Your task to perform on an android device: toggle location history Image 0: 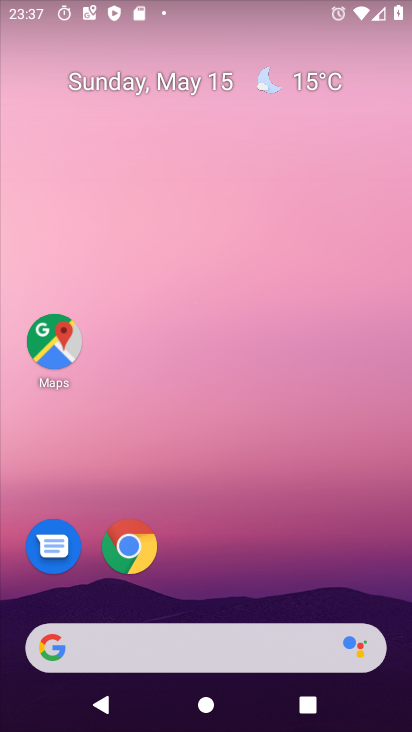
Step 0: drag from (271, 672) to (230, 195)
Your task to perform on an android device: toggle location history Image 1: 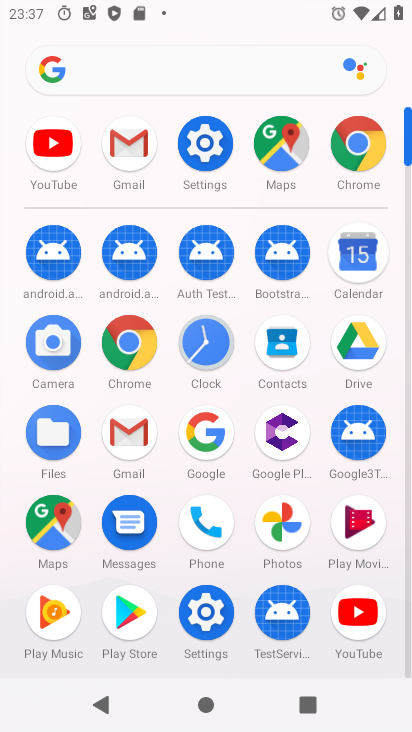
Step 1: click (277, 146)
Your task to perform on an android device: toggle location history Image 2: 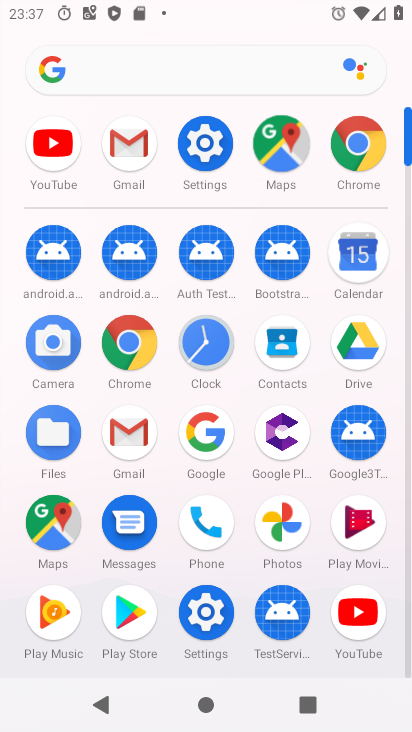
Step 2: click (277, 146)
Your task to perform on an android device: toggle location history Image 3: 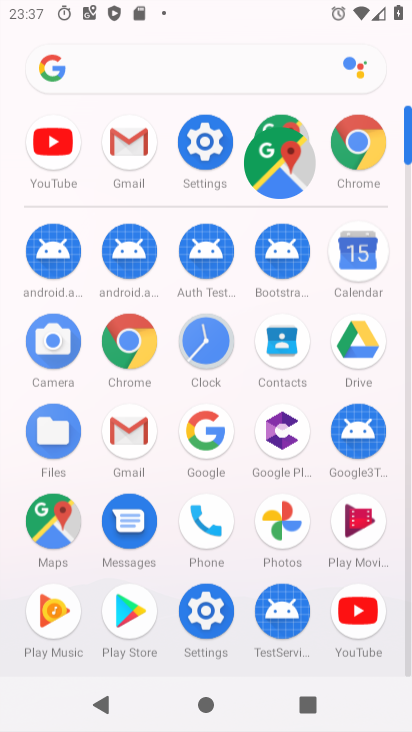
Step 3: click (277, 146)
Your task to perform on an android device: toggle location history Image 4: 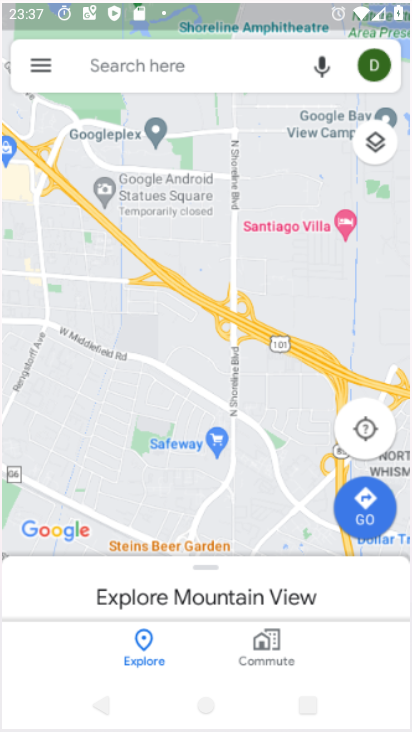
Step 4: click (278, 145)
Your task to perform on an android device: toggle location history Image 5: 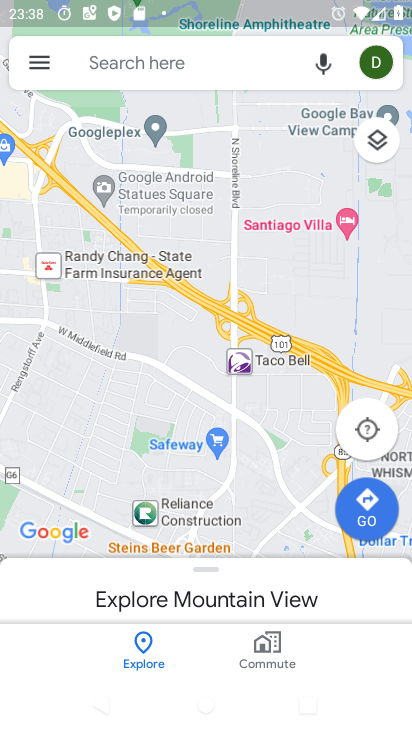
Step 5: click (102, 59)
Your task to perform on an android device: toggle location history Image 6: 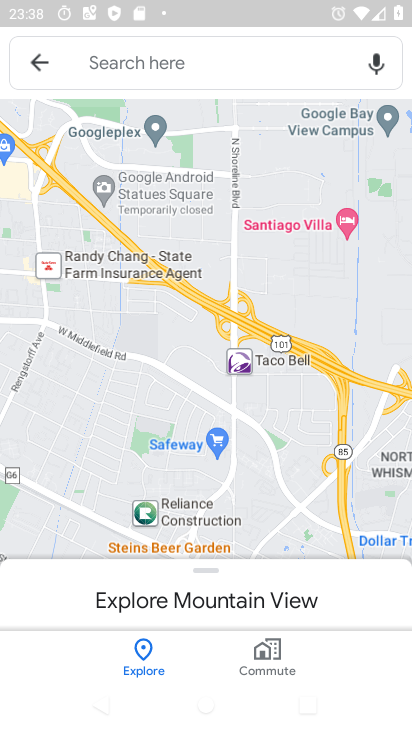
Step 6: click (102, 59)
Your task to perform on an android device: toggle location history Image 7: 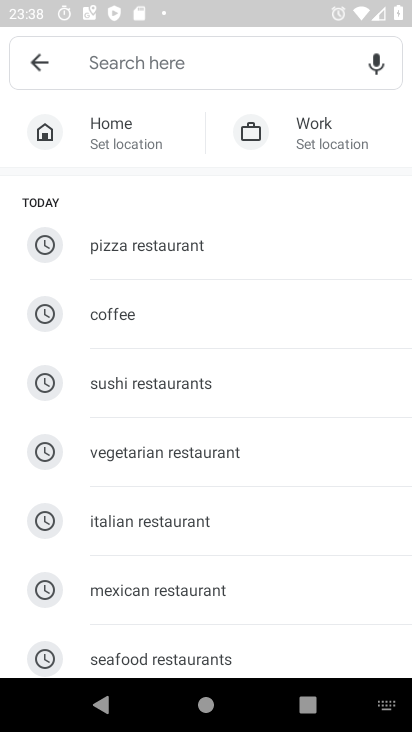
Step 7: drag from (187, 461) to (131, 44)
Your task to perform on an android device: toggle location history Image 8: 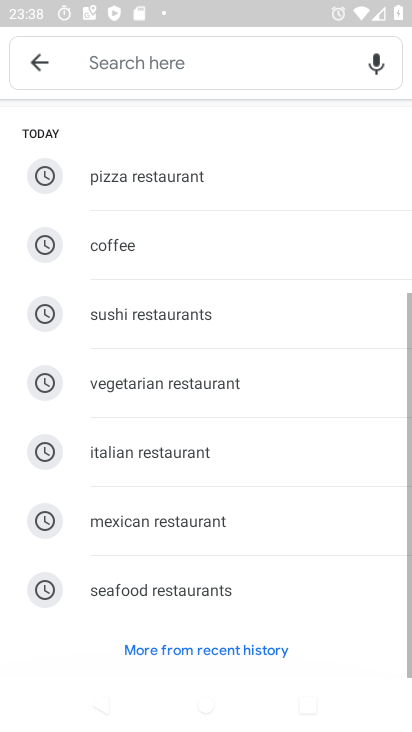
Step 8: drag from (183, 397) to (182, 144)
Your task to perform on an android device: toggle location history Image 9: 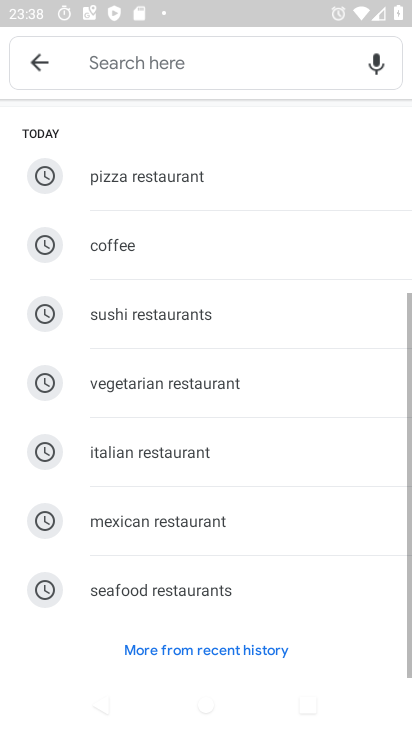
Step 9: drag from (156, 535) to (175, 214)
Your task to perform on an android device: toggle location history Image 10: 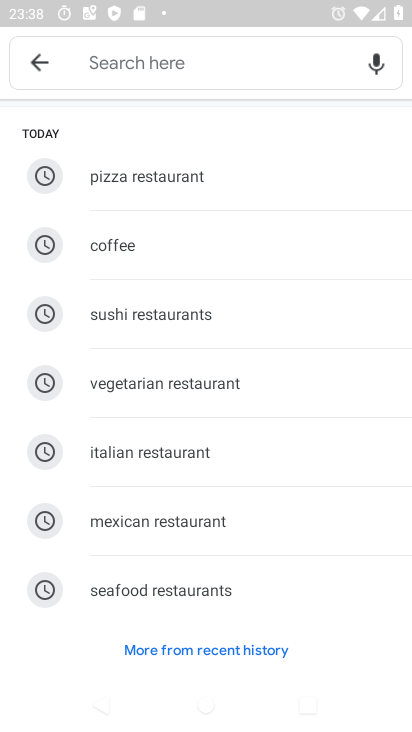
Step 10: click (38, 63)
Your task to perform on an android device: toggle location history Image 11: 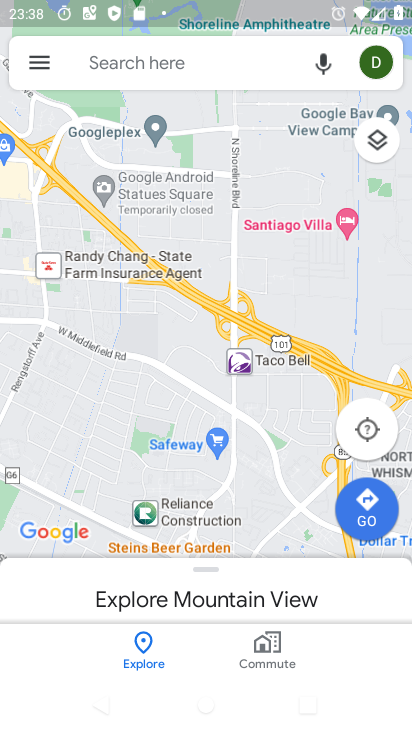
Step 11: click (73, 56)
Your task to perform on an android device: toggle location history Image 12: 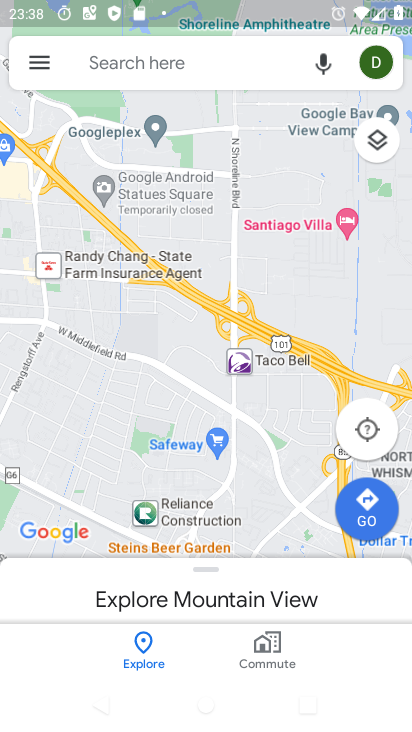
Step 12: click (116, 58)
Your task to perform on an android device: toggle location history Image 13: 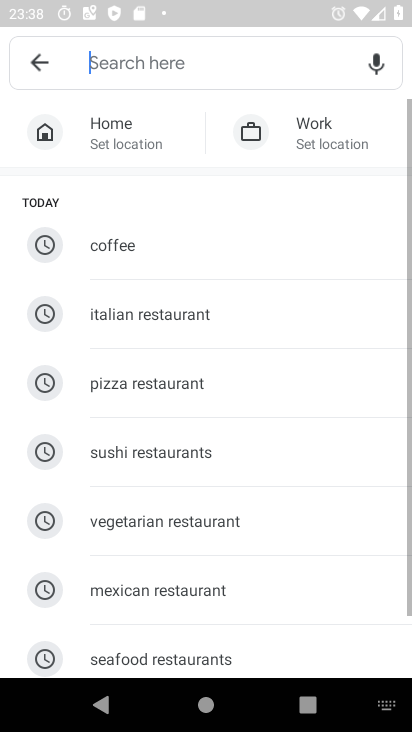
Step 13: click (93, 69)
Your task to perform on an android device: toggle location history Image 14: 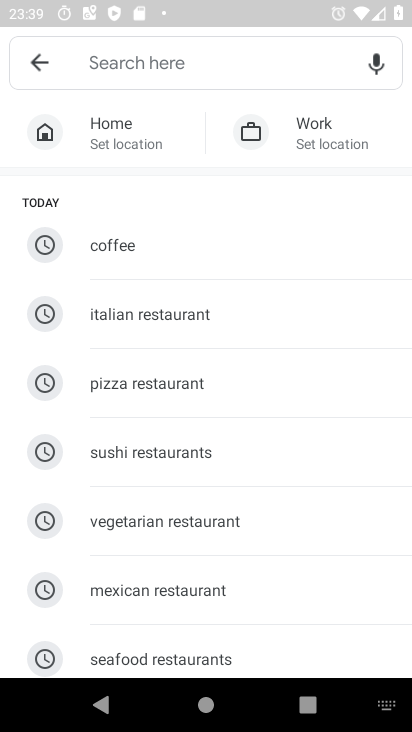
Step 14: drag from (138, 604) to (108, 231)
Your task to perform on an android device: toggle location history Image 15: 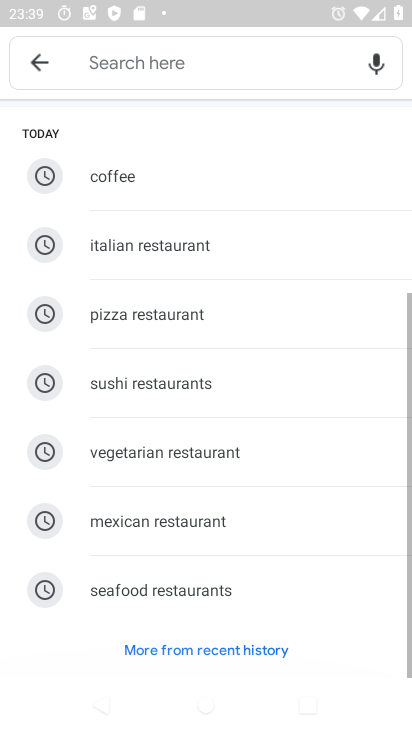
Step 15: drag from (161, 486) to (150, 215)
Your task to perform on an android device: toggle location history Image 16: 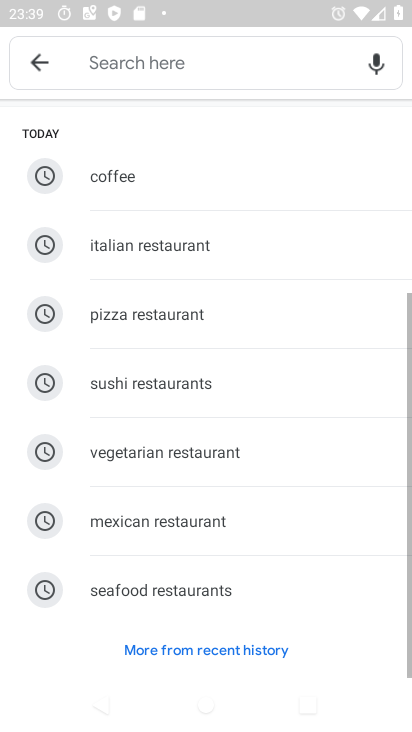
Step 16: drag from (162, 439) to (160, 182)
Your task to perform on an android device: toggle location history Image 17: 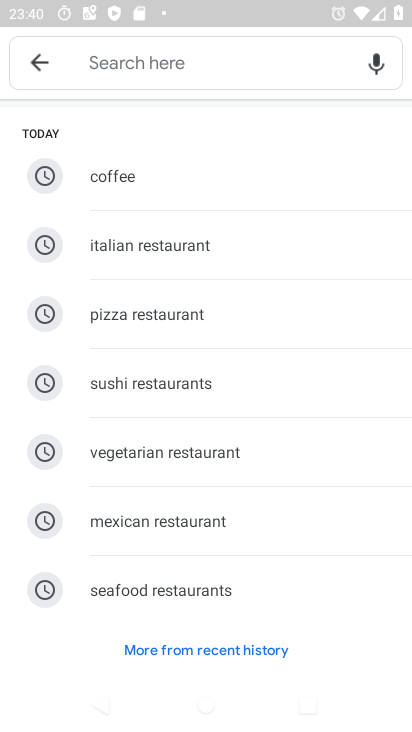
Step 17: click (41, 61)
Your task to perform on an android device: toggle location history Image 18: 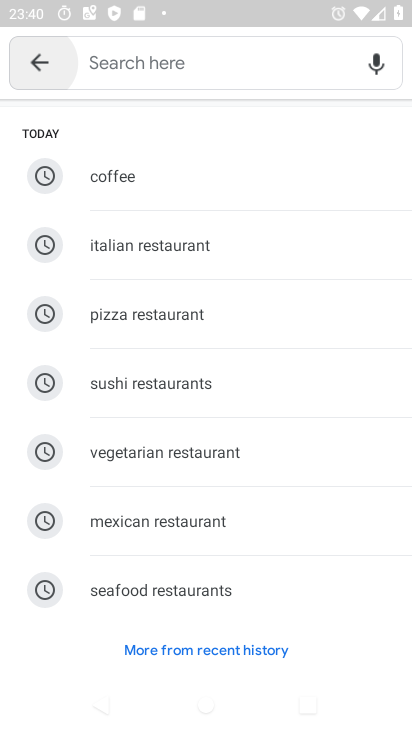
Step 18: click (41, 61)
Your task to perform on an android device: toggle location history Image 19: 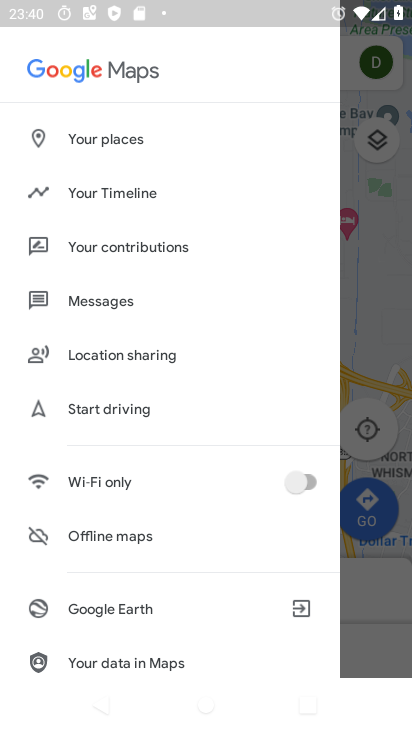
Step 19: drag from (104, 594) to (131, 149)
Your task to perform on an android device: toggle location history Image 20: 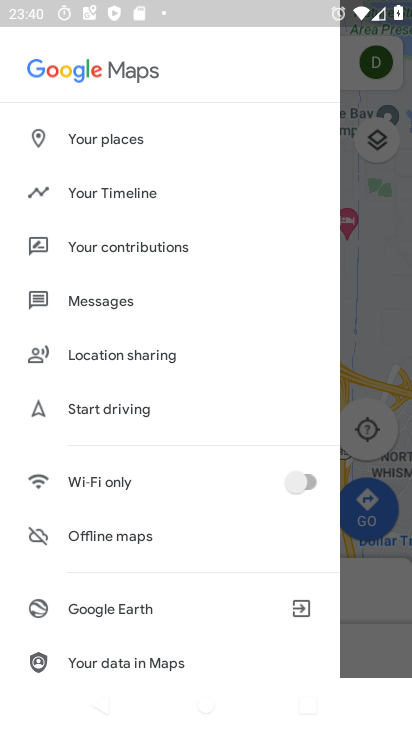
Step 20: click (94, 184)
Your task to perform on an android device: toggle location history Image 21: 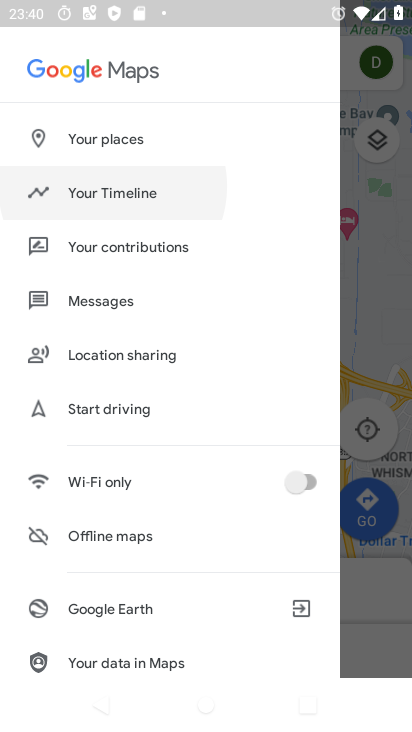
Step 21: click (99, 184)
Your task to perform on an android device: toggle location history Image 22: 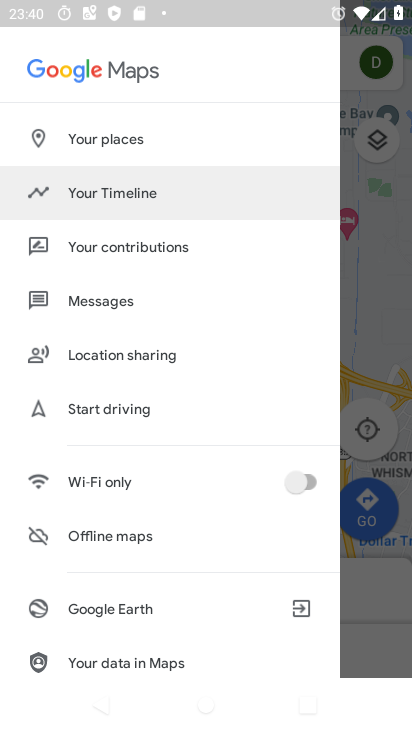
Step 22: click (99, 184)
Your task to perform on an android device: toggle location history Image 23: 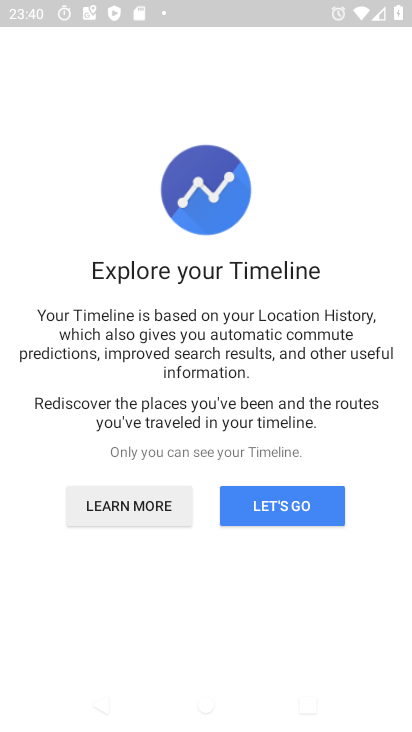
Step 23: click (301, 508)
Your task to perform on an android device: toggle location history Image 24: 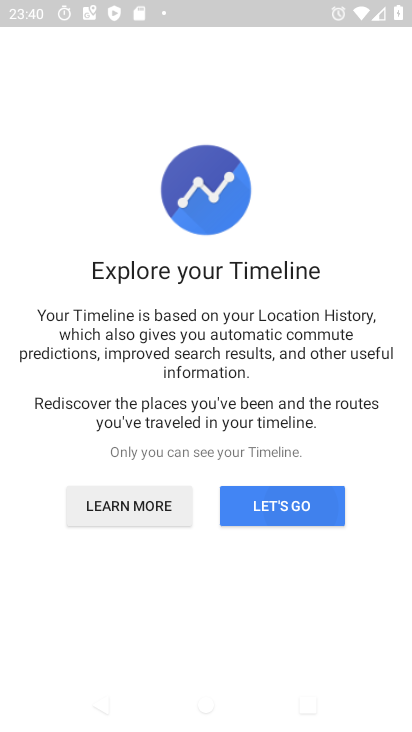
Step 24: click (301, 508)
Your task to perform on an android device: toggle location history Image 25: 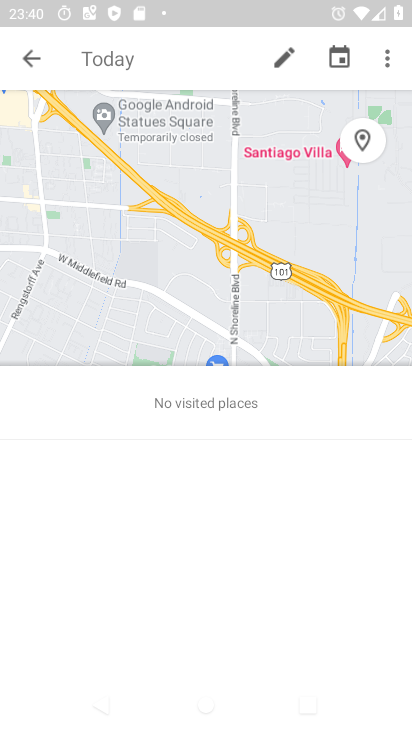
Step 25: click (301, 505)
Your task to perform on an android device: toggle location history Image 26: 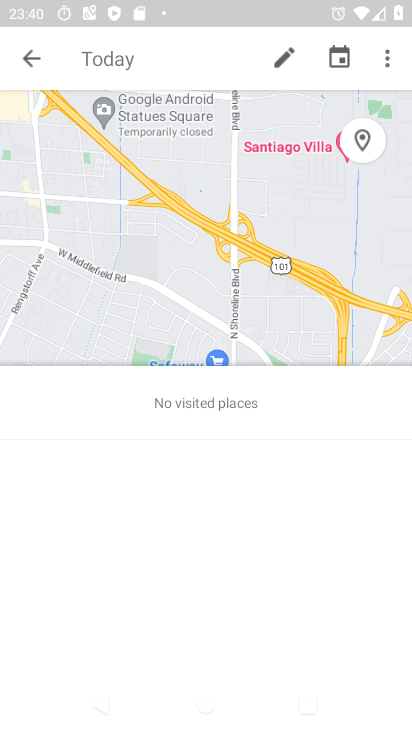
Step 26: click (391, 63)
Your task to perform on an android device: toggle location history Image 27: 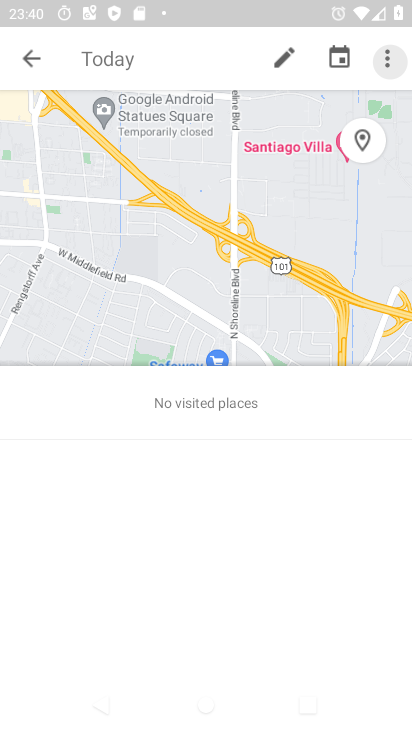
Step 27: click (391, 63)
Your task to perform on an android device: toggle location history Image 28: 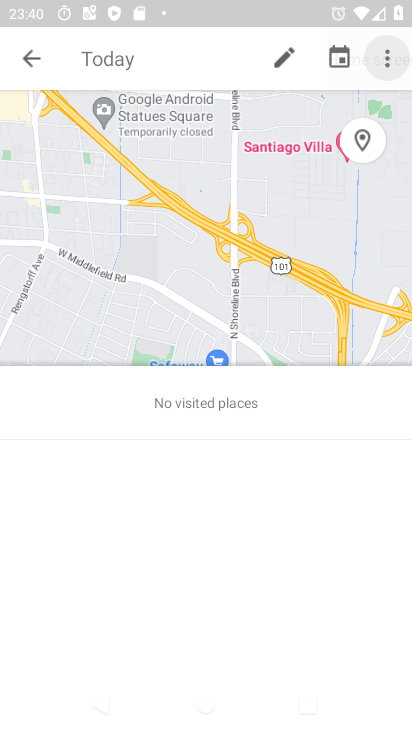
Step 28: click (391, 63)
Your task to perform on an android device: toggle location history Image 29: 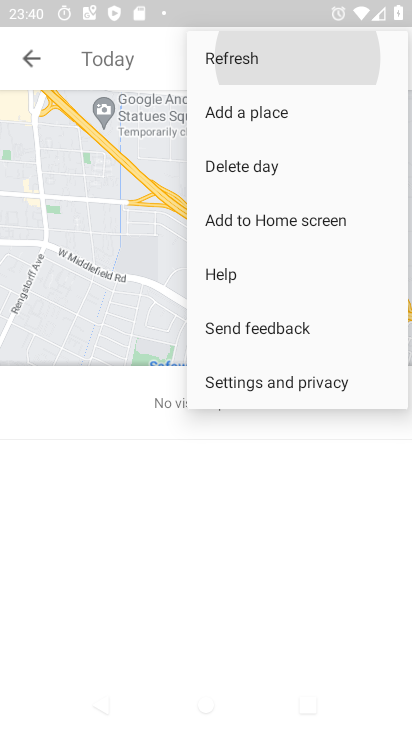
Step 29: click (391, 63)
Your task to perform on an android device: toggle location history Image 30: 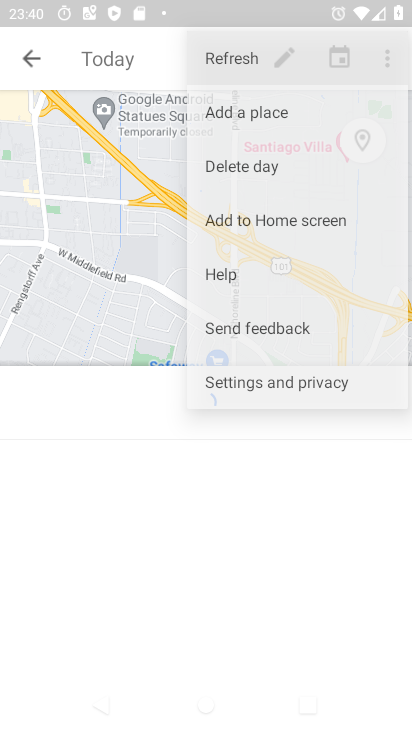
Step 30: drag from (391, 63) to (271, 386)
Your task to perform on an android device: toggle location history Image 31: 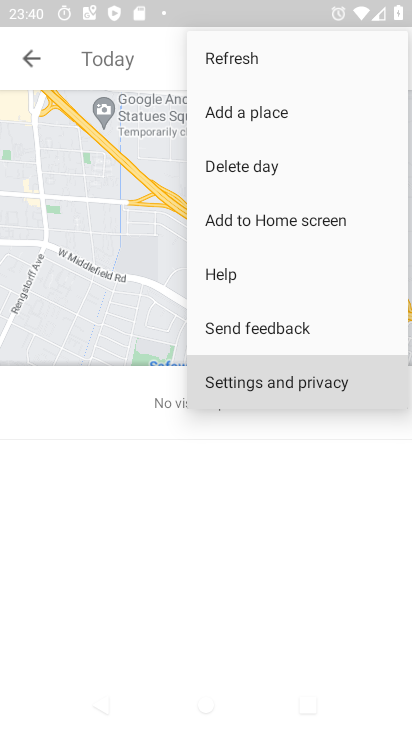
Step 31: click (271, 386)
Your task to perform on an android device: toggle location history Image 32: 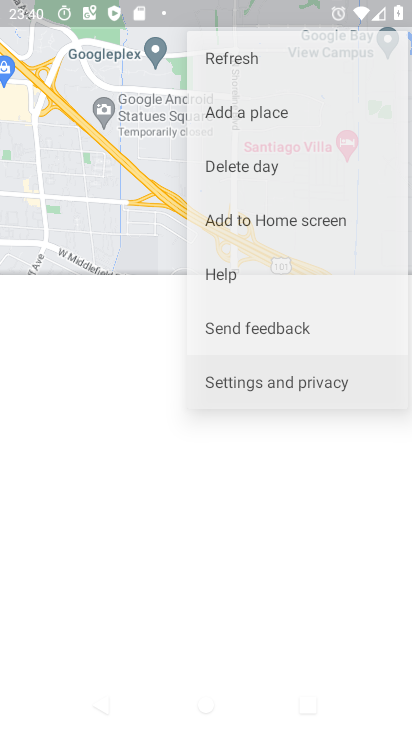
Step 32: click (277, 380)
Your task to perform on an android device: toggle location history Image 33: 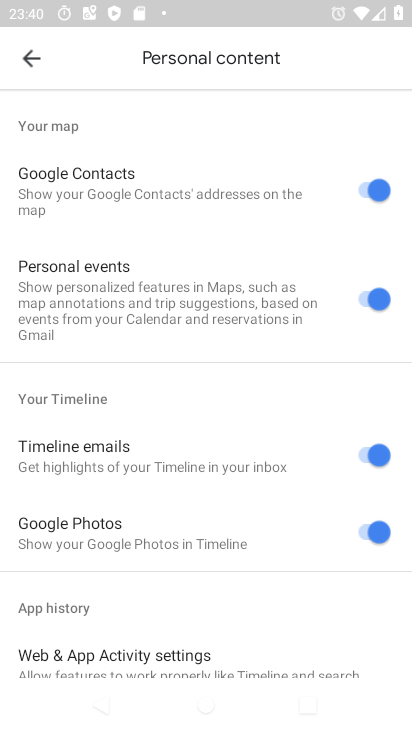
Step 33: drag from (149, 388) to (143, 176)
Your task to perform on an android device: toggle location history Image 34: 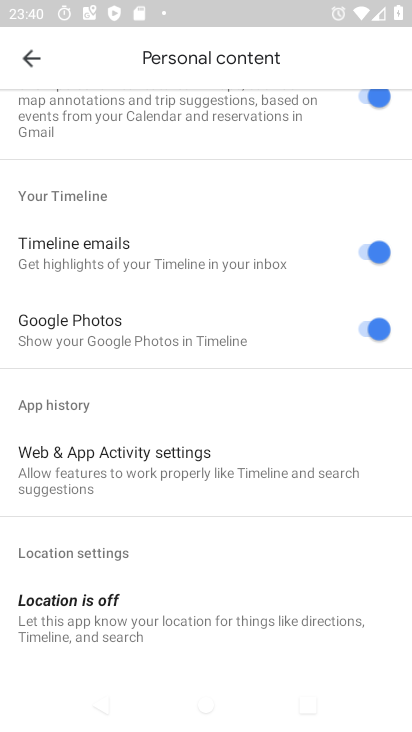
Step 34: drag from (140, 360) to (125, 174)
Your task to perform on an android device: toggle location history Image 35: 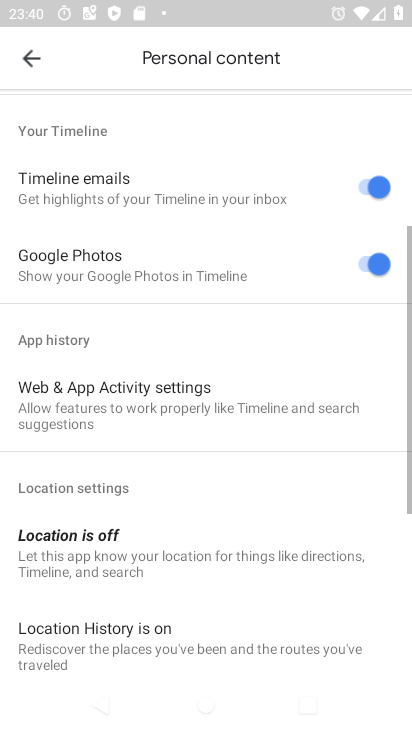
Step 35: drag from (107, 505) to (94, 228)
Your task to perform on an android device: toggle location history Image 36: 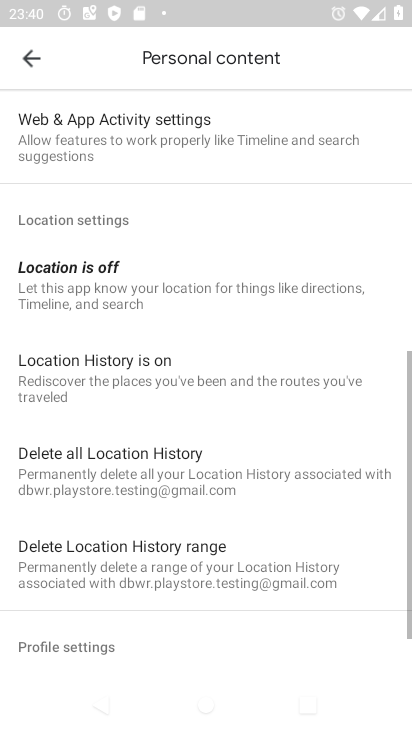
Step 36: drag from (214, 515) to (233, 151)
Your task to perform on an android device: toggle location history Image 37: 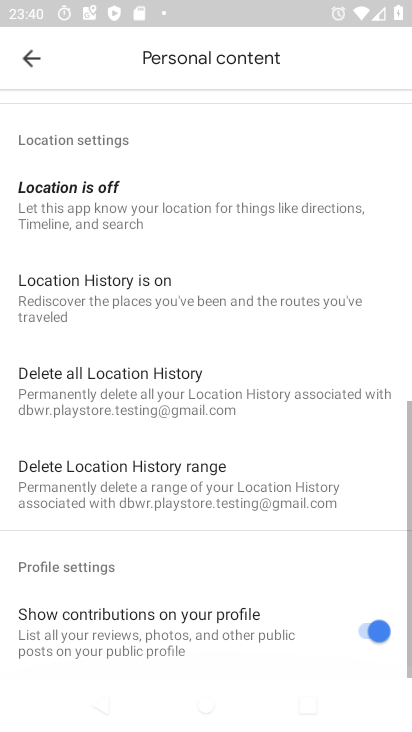
Step 37: drag from (206, 514) to (184, 244)
Your task to perform on an android device: toggle location history Image 38: 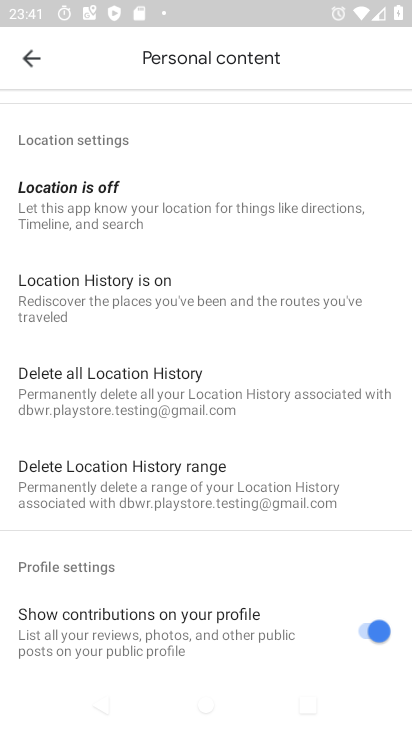
Step 38: click (97, 287)
Your task to perform on an android device: toggle location history Image 39: 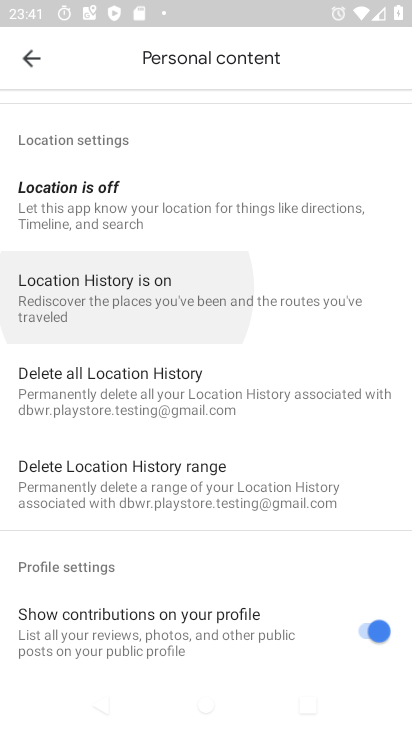
Step 39: click (97, 287)
Your task to perform on an android device: toggle location history Image 40: 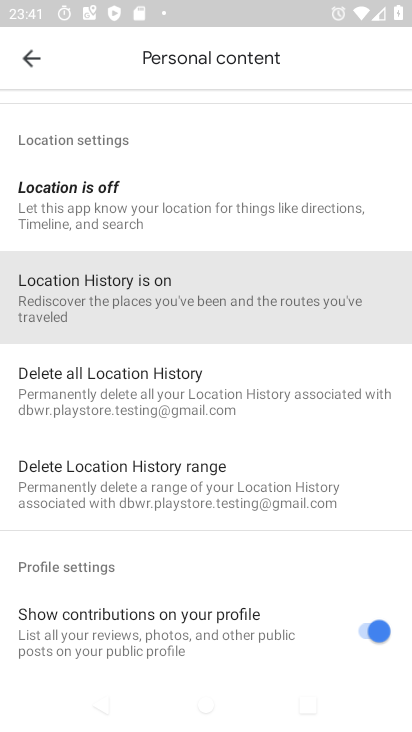
Step 40: click (97, 287)
Your task to perform on an android device: toggle location history Image 41: 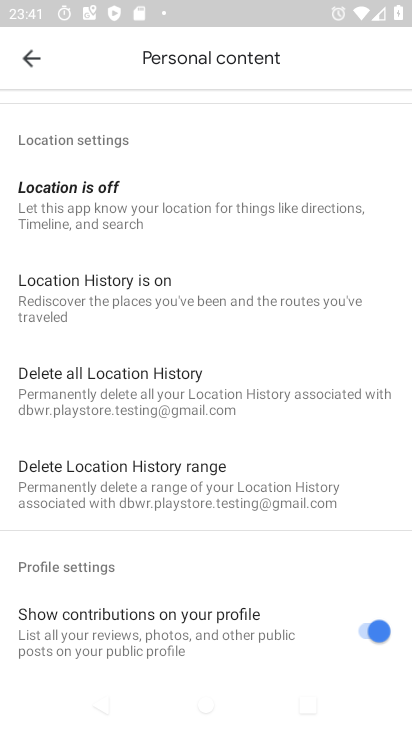
Step 41: click (97, 287)
Your task to perform on an android device: toggle location history Image 42: 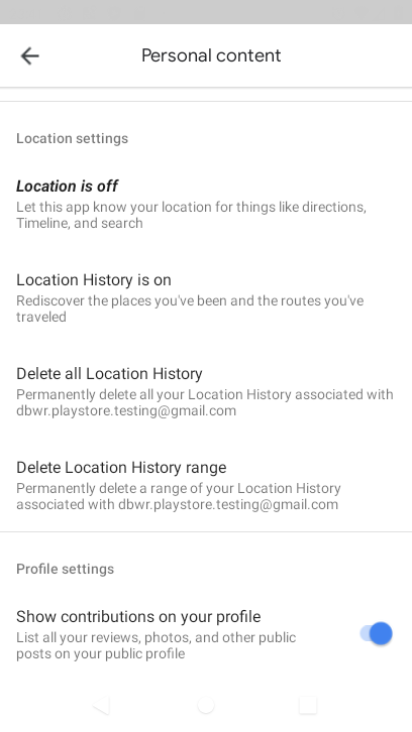
Step 42: click (97, 287)
Your task to perform on an android device: toggle location history Image 43: 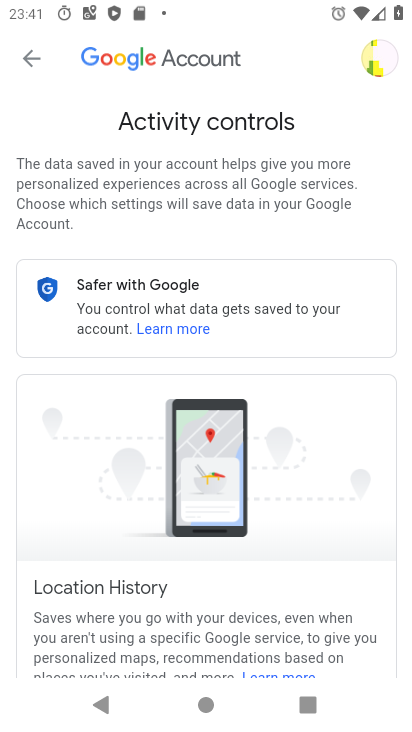
Step 43: task complete